Your task to perform on an android device: toggle translation in the chrome app Image 0: 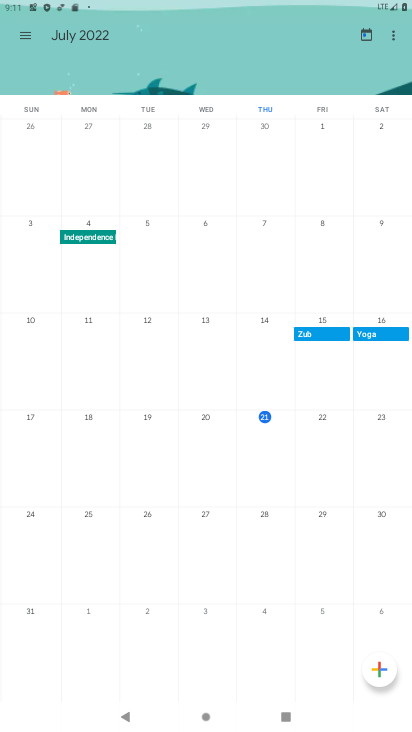
Step 0: press home button
Your task to perform on an android device: toggle translation in the chrome app Image 1: 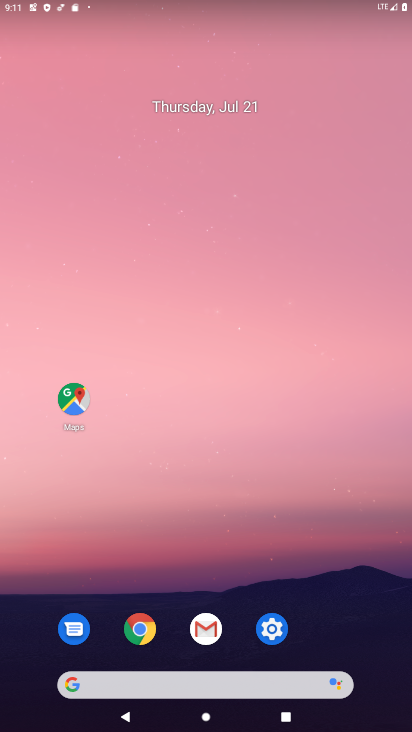
Step 1: click (141, 628)
Your task to perform on an android device: toggle translation in the chrome app Image 2: 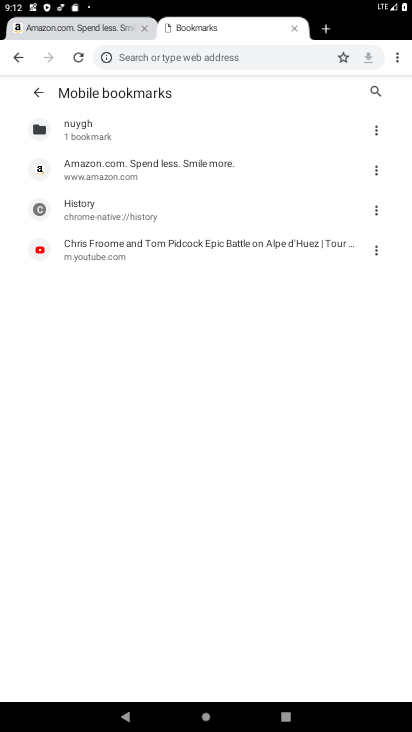
Step 2: click (395, 59)
Your task to perform on an android device: toggle translation in the chrome app Image 3: 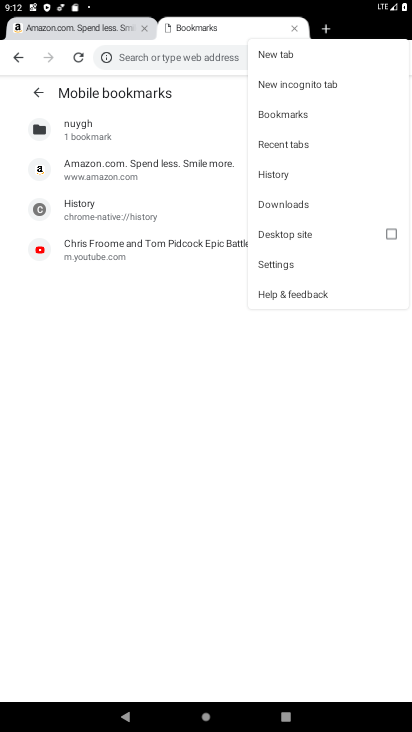
Step 3: click (278, 266)
Your task to perform on an android device: toggle translation in the chrome app Image 4: 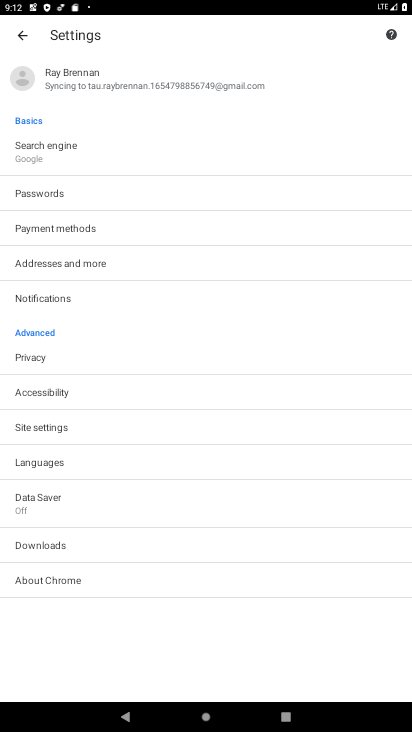
Step 4: click (56, 464)
Your task to perform on an android device: toggle translation in the chrome app Image 5: 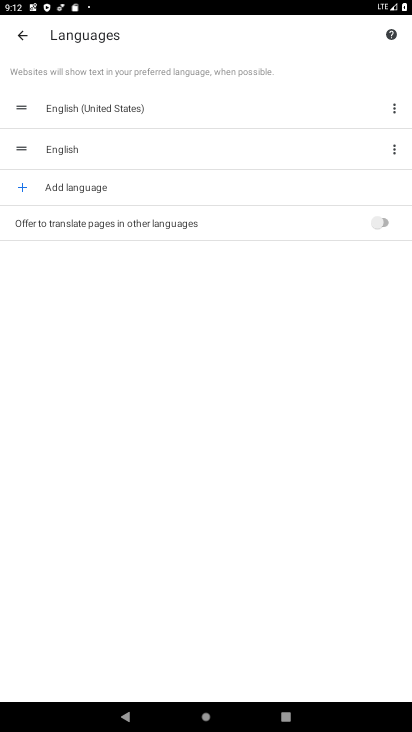
Step 5: click (340, 219)
Your task to perform on an android device: toggle translation in the chrome app Image 6: 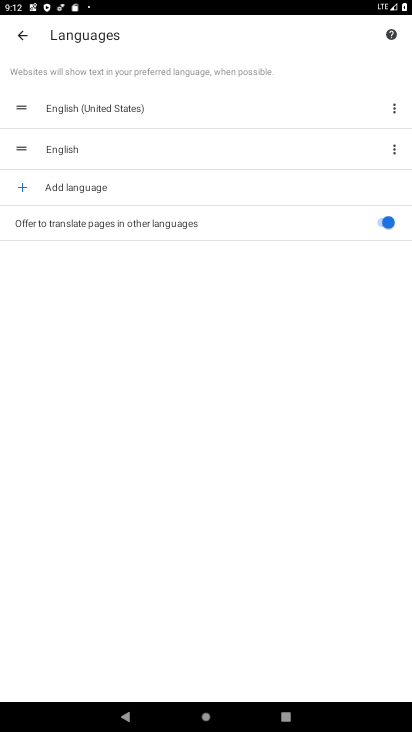
Step 6: click (340, 219)
Your task to perform on an android device: toggle translation in the chrome app Image 7: 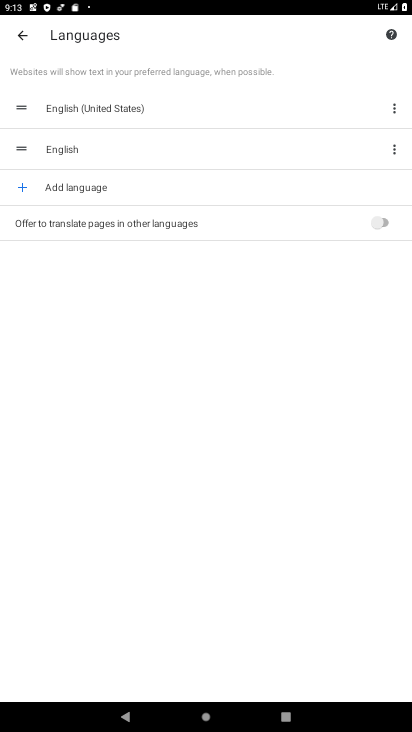
Step 7: task complete